Your task to perform on an android device: turn on bluetooth scan Image 0: 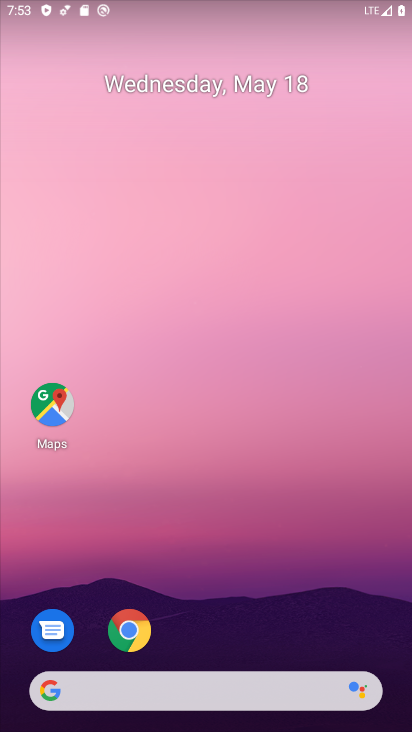
Step 0: drag from (160, 686) to (288, 118)
Your task to perform on an android device: turn on bluetooth scan Image 1: 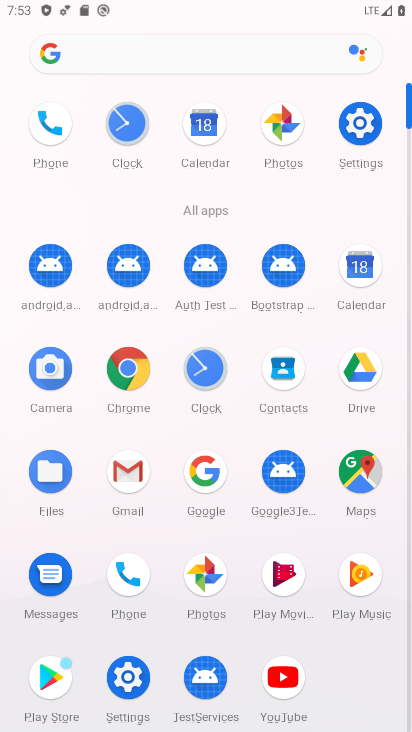
Step 1: click (372, 129)
Your task to perform on an android device: turn on bluetooth scan Image 2: 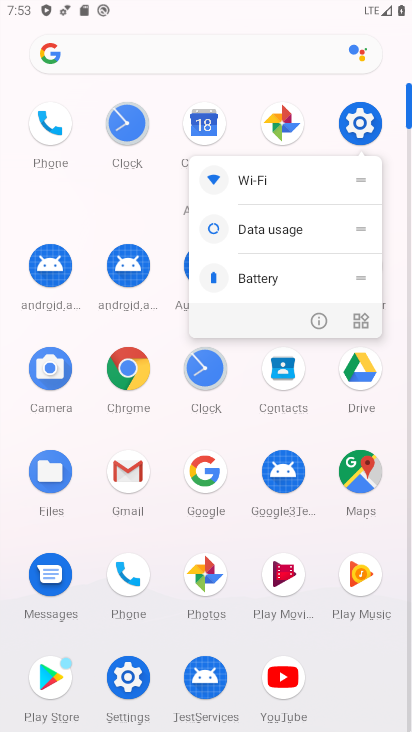
Step 2: click (364, 118)
Your task to perform on an android device: turn on bluetooth scan Image 3: 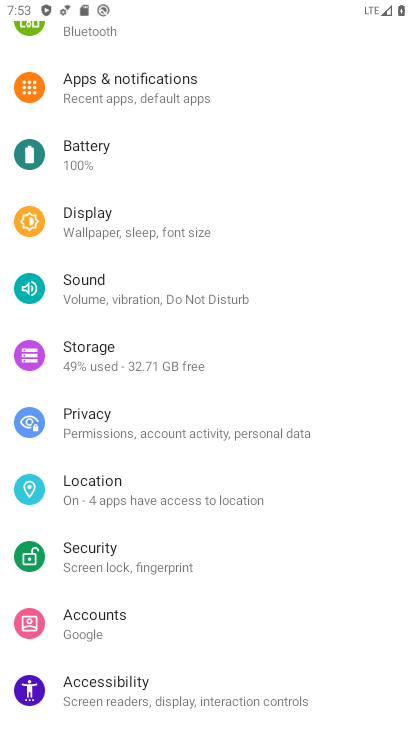
Step 3: click (108, 490)
Your task to perform on an android device: turn on bluetooth scan Image 4: 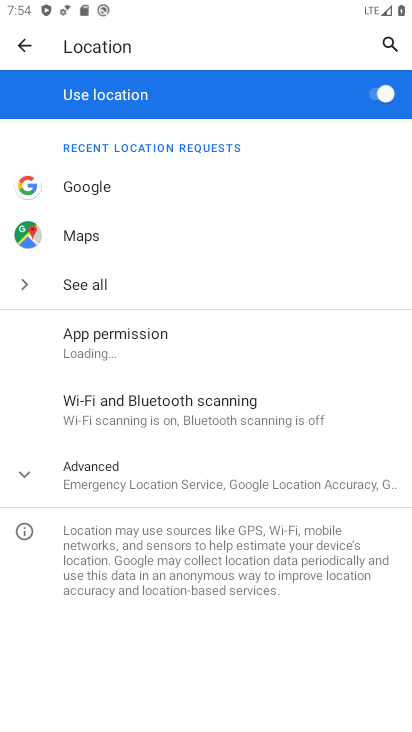
Step 4: click (208, 406)
Your task to perform on an android device: turn on bluetooth scan Image 5: 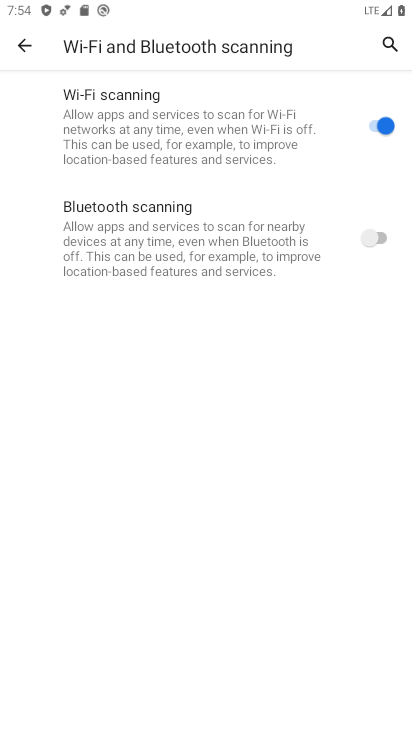
Step 5: click (381, 235)
Your task to perform on an android device: turn on bluetooth scan Image 6: 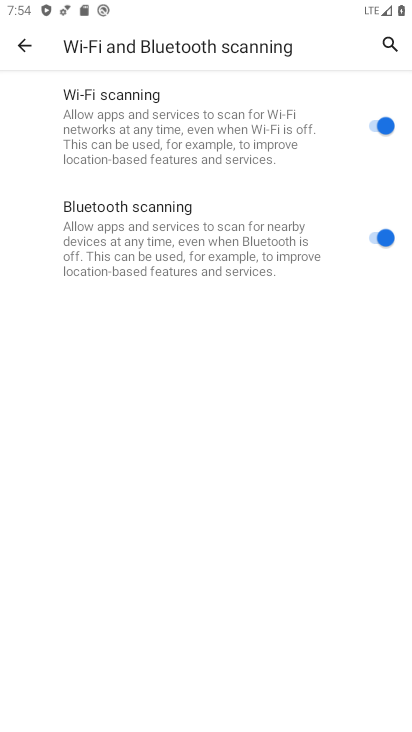
Step 6: task complete